Your task to perform on an android device: Open Chrome and go to settings Image 0: 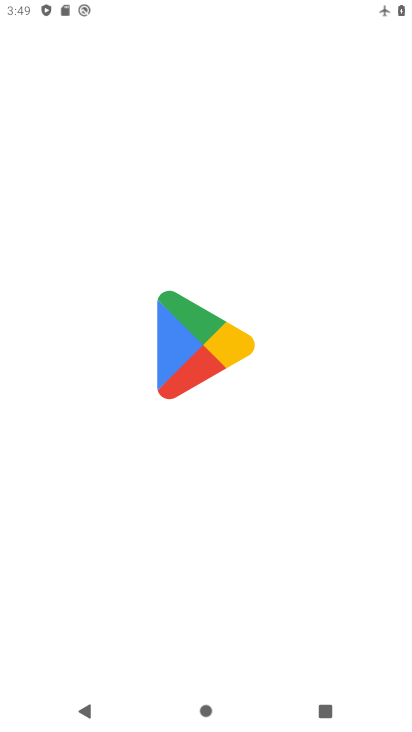
Step 0: click (217, 147)
Your task to perform on an android device: Open Chrome and go to settings Image 1: 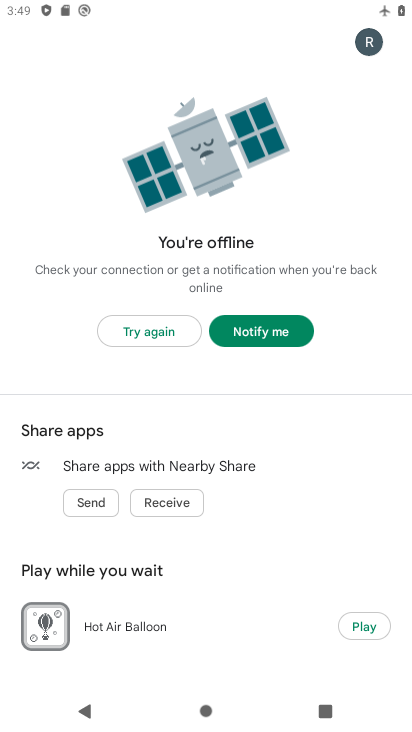
Step 1: press home button
Your task to perform on an android device: Open Chrome and go to settings Image 2: 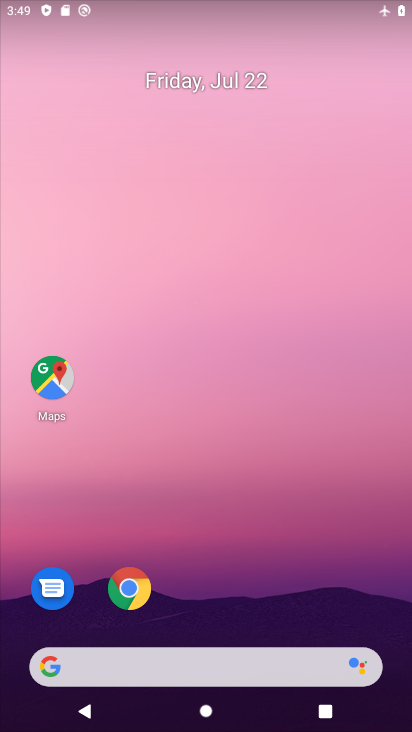
Step 2: drag from (315, 182) to (316, 134)
Your task to perform on an android device: Open Chrome and go to settings Image 3: 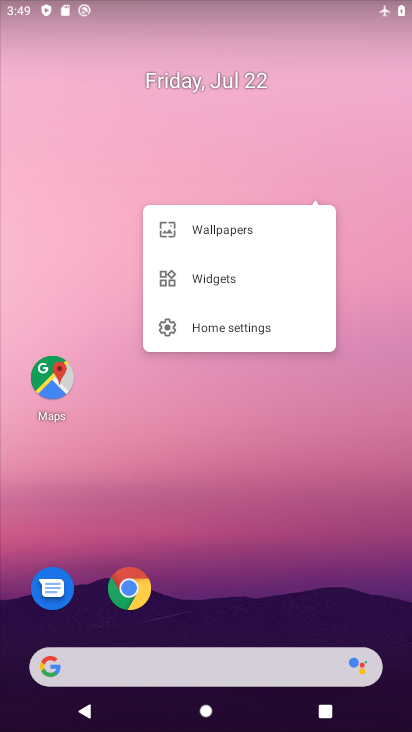
Step 3: drag from (398, 637) to (319, 91)
Your task to perform on an android device: Open Chrome and go to settings Image 4: 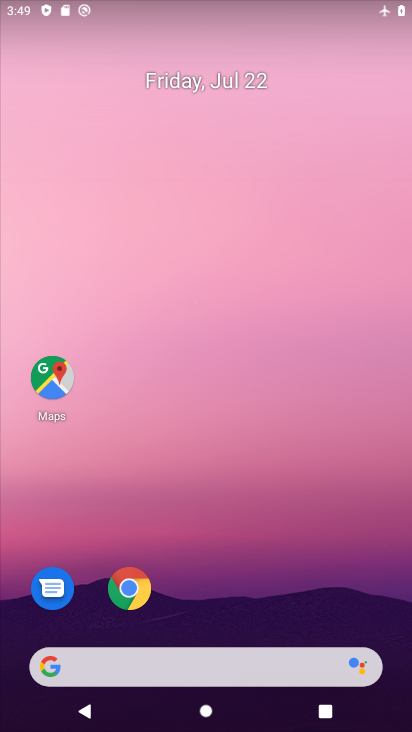
Step 4: drag from (200, 355) to (167, 81)
Your task to perform on an android device: Open Chrome and go to settings Image 5: 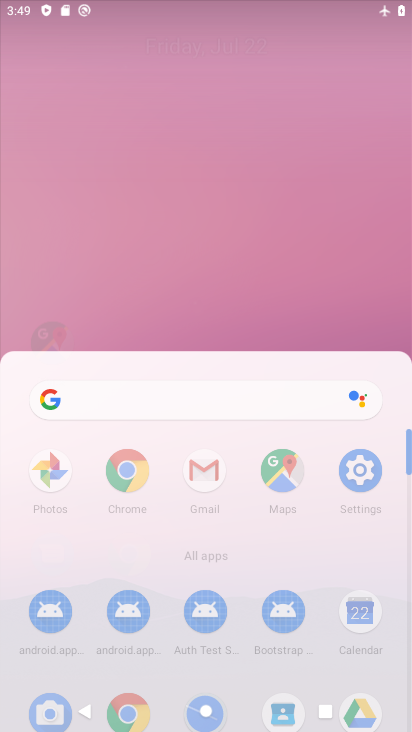
Step 5: drag from (270, 497) to (273, 175)
Your task to perform on an android device: Open Chrome and go to settings Image 6: 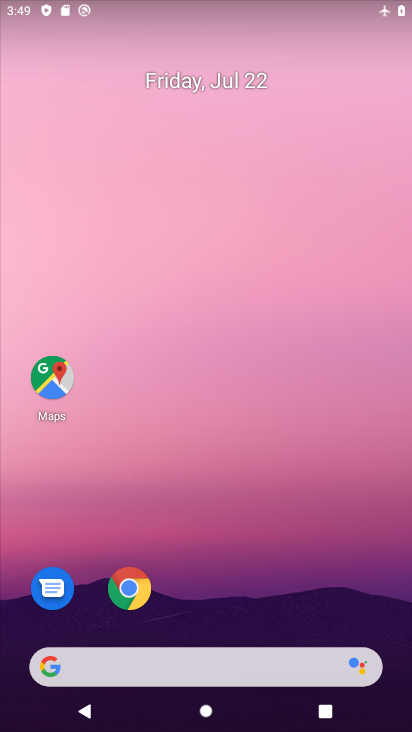
Step 6: drag from (267, 628) to (239, 99)
Your task to perform on an android device: Open Chrome and go to settings Image 7: 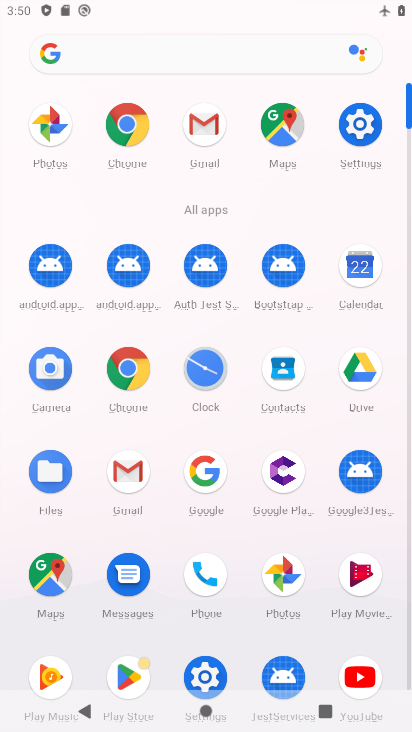
Step 7: click (126, 125)
Your task to perform on an android device: Open Chrome and go to settings Image 8: 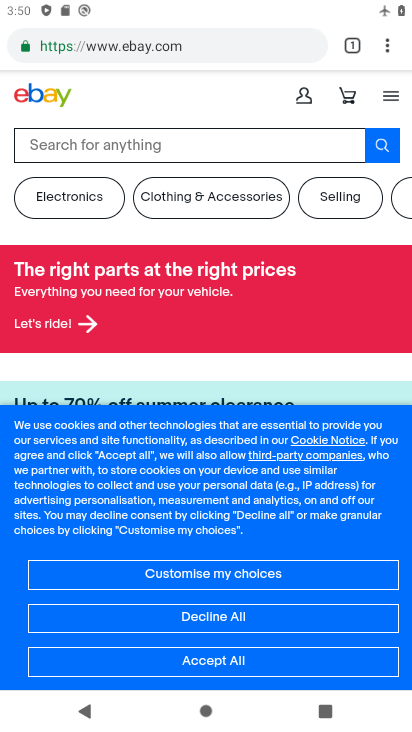
Step 8: click (385, 45)
Your task to perform on an android device: Open Chrome and go to settings Image 9: 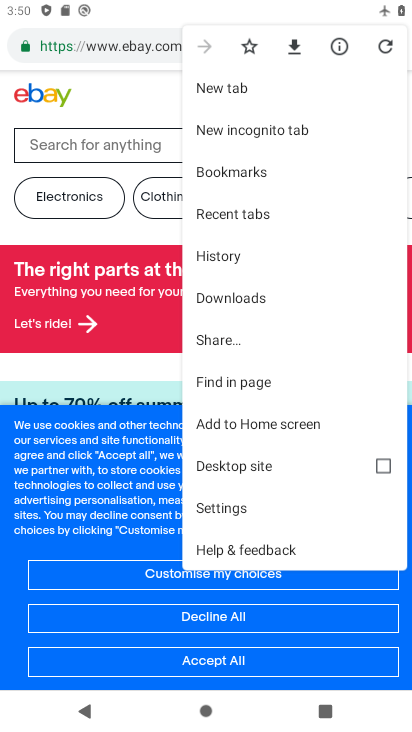
Step 9: click (240, 499)
Your task to perform on an android device: Open Chrome and go to settings Image 10: 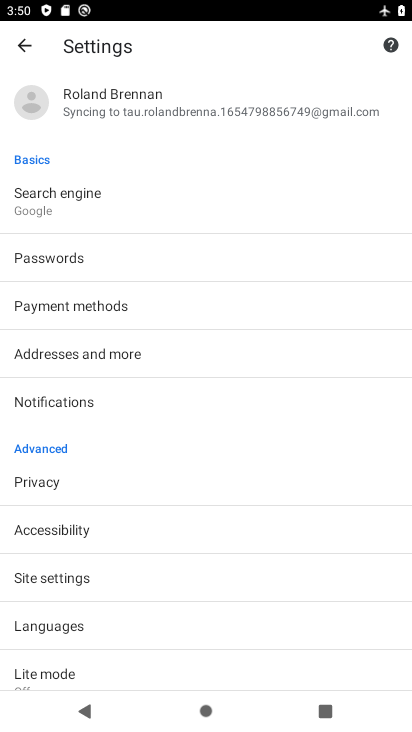
Step 10: task complete